Your task to perform on an android device: Open Yahoo.com Image 0: 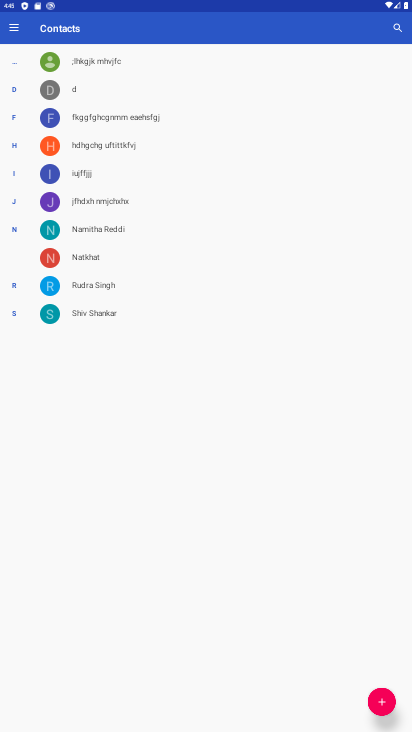
Step 0: press home button
Your task to perform on an android device: Open Yahoo.com Image 1: 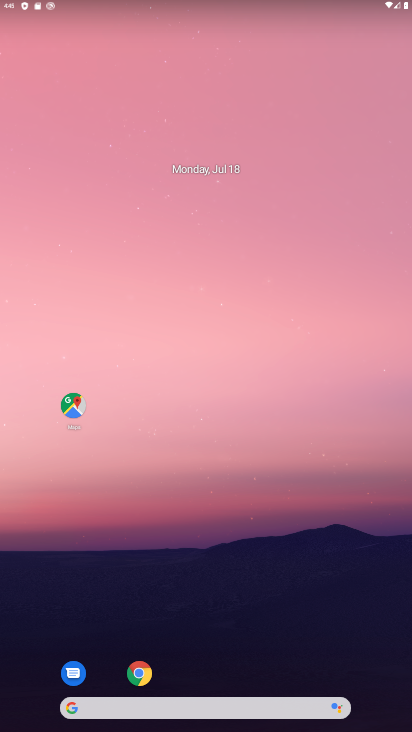
Step 1: drag from (227, 542) to (216, 176)
Your task to perform on an android device: Open Yahoo.com Image 2: 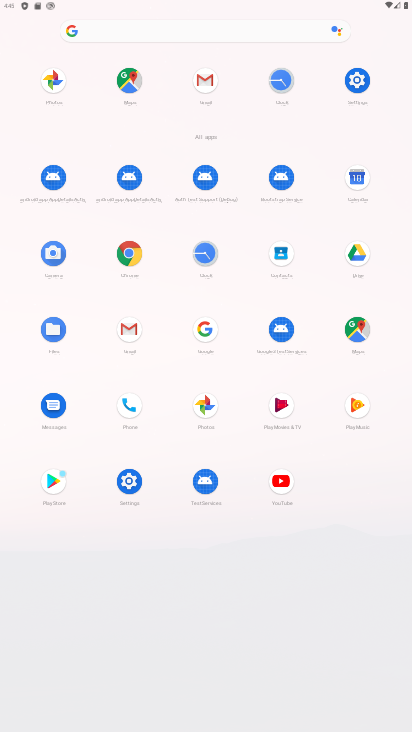
Step 2: click (123, 255)
Your task to perform on an android device: Open Yahoo.com Image 3: 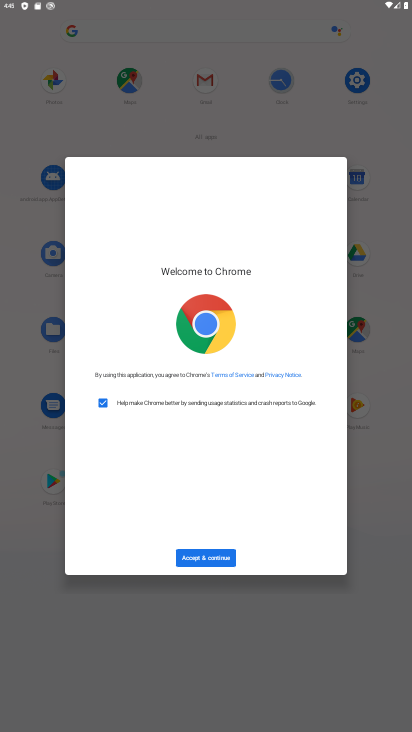
Step 3: click (199, 564)
Your task to perform on an android device: Open Yahoo.com Image 4: 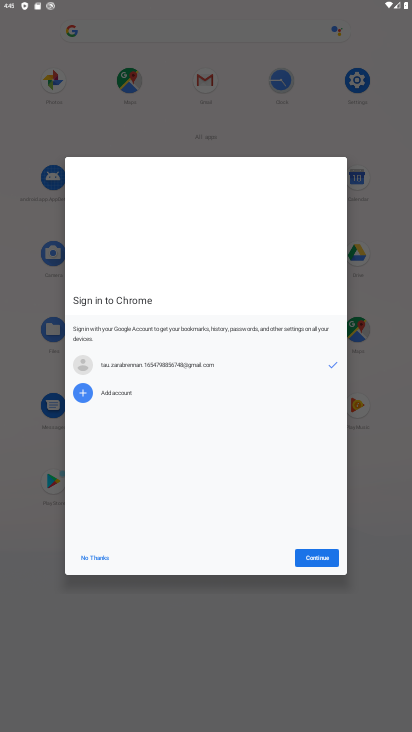
Step 4: click (84, 560)
Your task to perform on an android device: Open Yahoo.com Image 5: 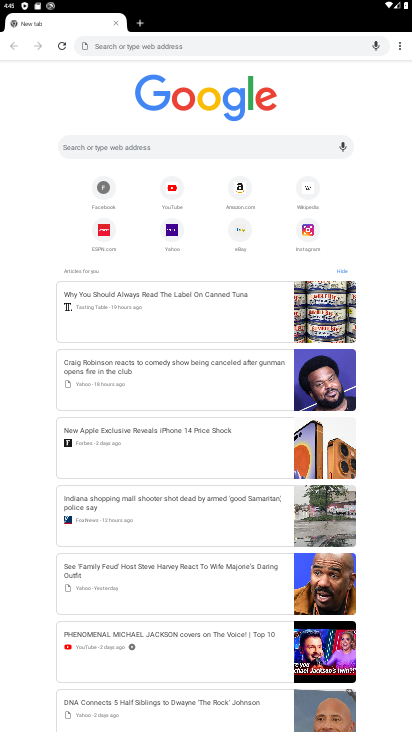
Step 5: click (164, 232)
Your task to perform on an android device: Open Yahoo.com Image 6: 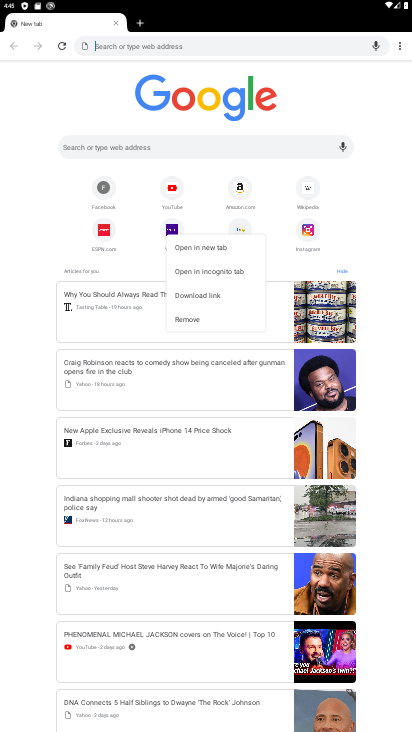
Step 6: click (167, 239)
Your task to perform on an android device: Open Yahoo.com Image 7: 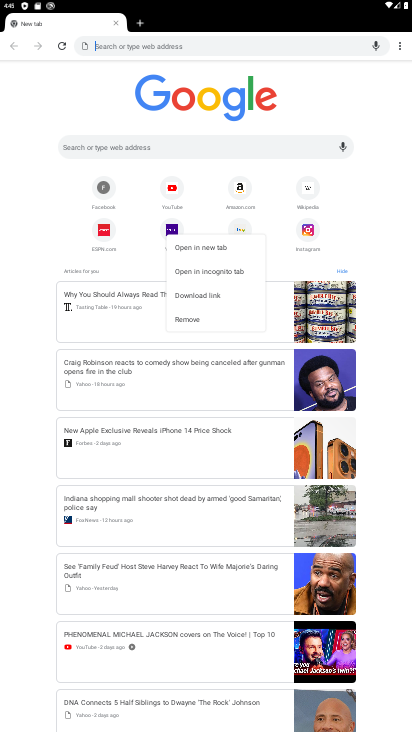
Step 7: click (172, 229)
Your task to perform on an android device: Open Yahoo.com Image 8: 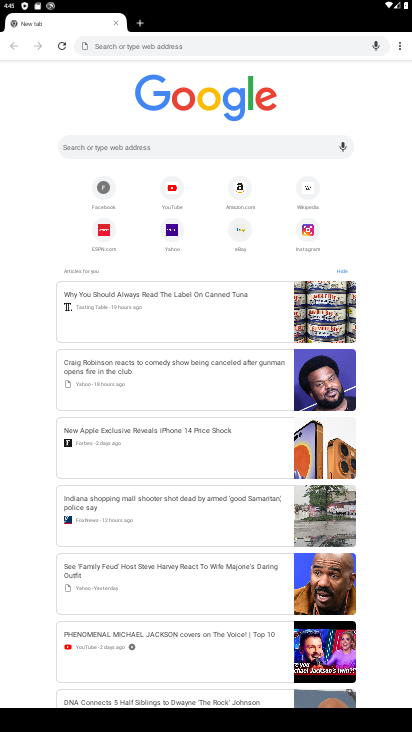
Step 8: click (171, 235)
Your task to perform on an android device: Open Yahoo.com Image 9: 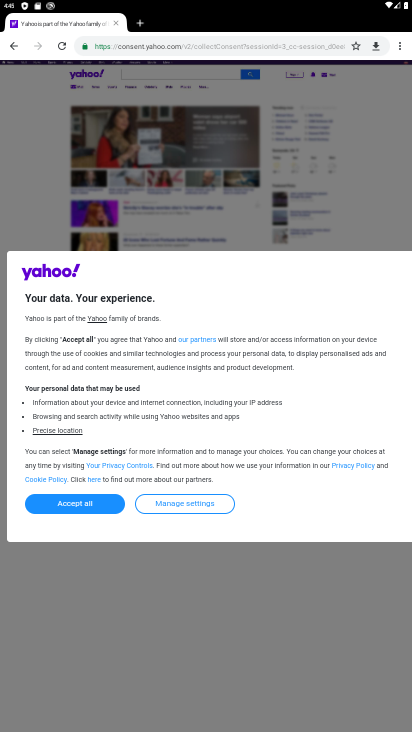
Step 9: task complete